Your task to perform on an android device: turn pop-ups off in chrome Image 0: 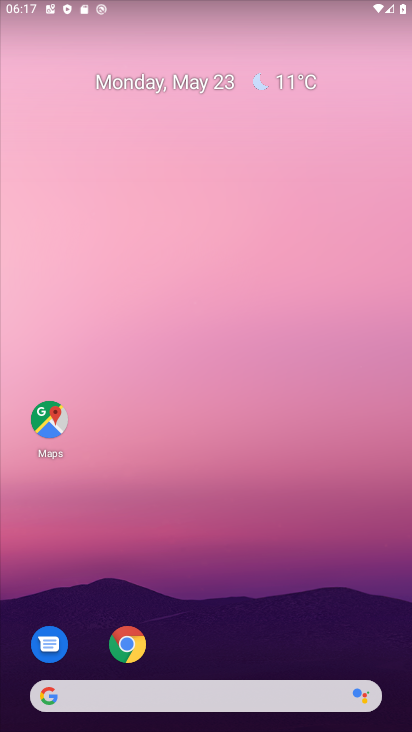
Step 0: click (126, 652)
Your task to perform on an android device: turn pop-ups off in chrome Image 1: 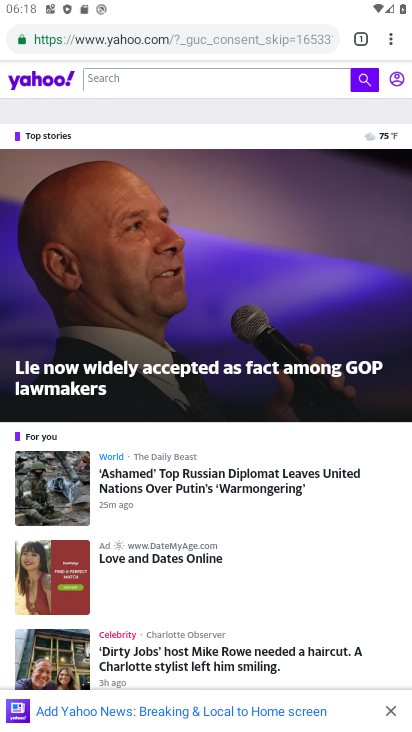
Step 1: click (388, 38)
Your task to perform on an android device: turn pop-ups off in chrome Image 2: 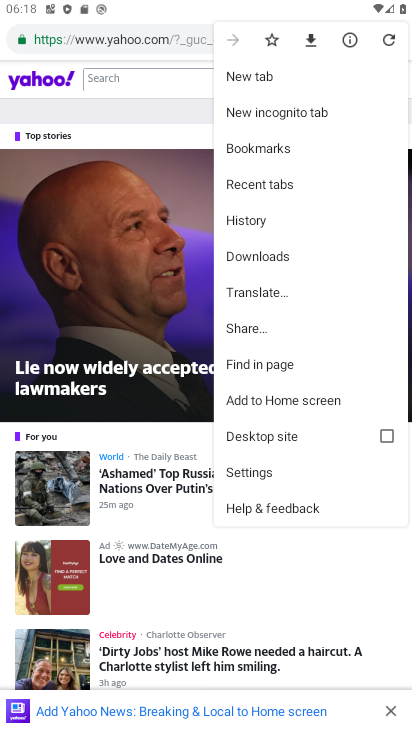
Step 2: click (268, 470)
Your task to perform on an android device: turn pop-ups off in chrome Image 3: 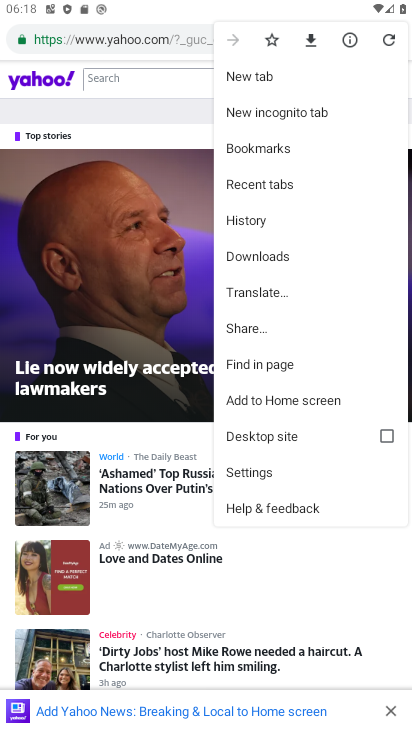
Step 3: click (258, 468)
Your task to perform on an android device: turn pop-ups off in chrome Image 4: 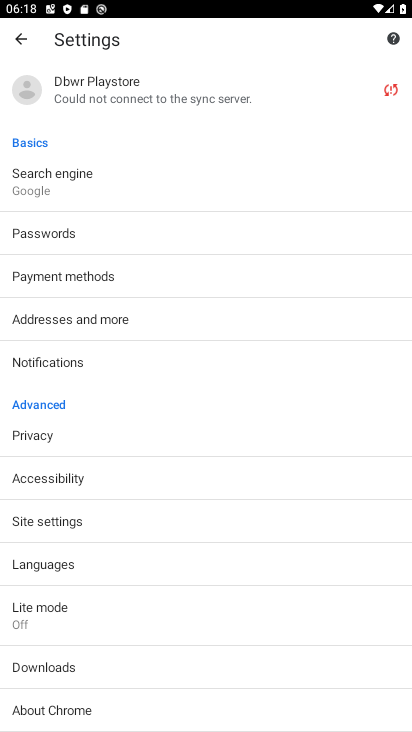
Step 4: click (48, 523)
Your task to perform on an android device: turn pop-ups off in chrome Image 5: 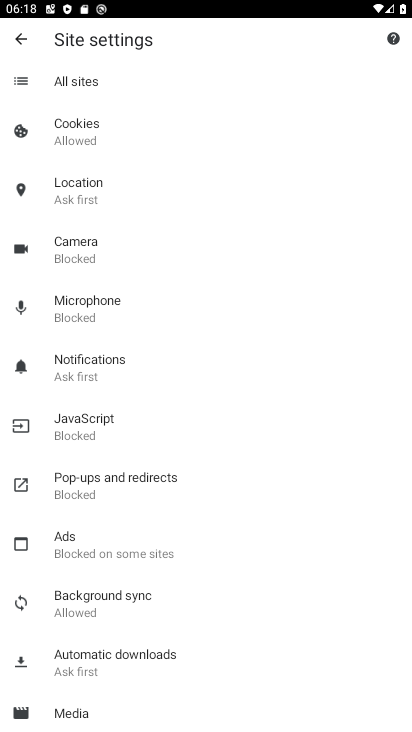
Step 5: click (157, 473)
Your task to perform on an android device: turn pop-ups off in chrome Image 6: 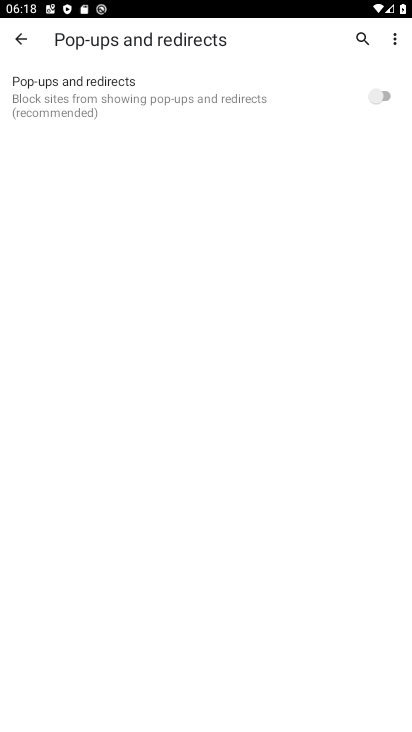
Step 6: task complete